Your task to perform on an android device: toggle wifi Image 0: 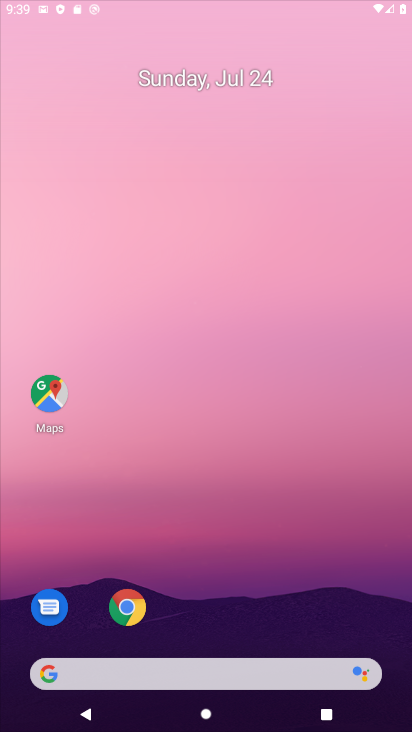
Step 0: press home button
Your task to perform on an android device: toggle wifi Image 1: 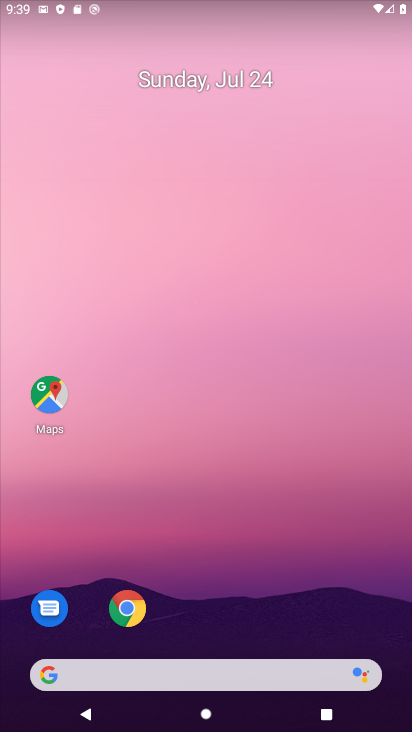
Step 1: drag from (207, 646) to (239, 6)
Your task to perform on an android device: toggle wifi Image 2: 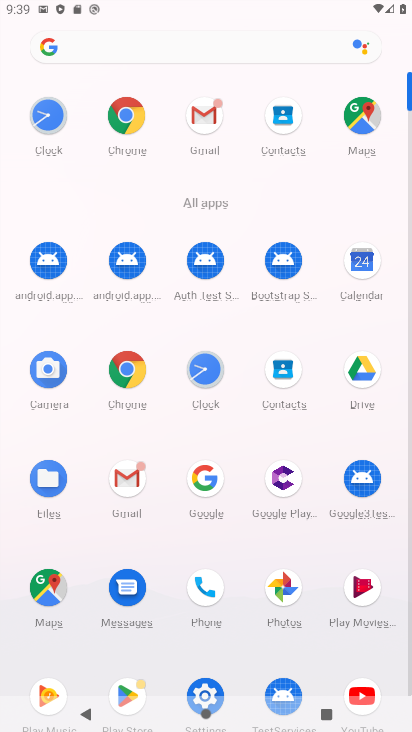
Step 2: drag from (232, 644) to (247, 212)
Your task to perform on an android device: toggle wifi Image 3: 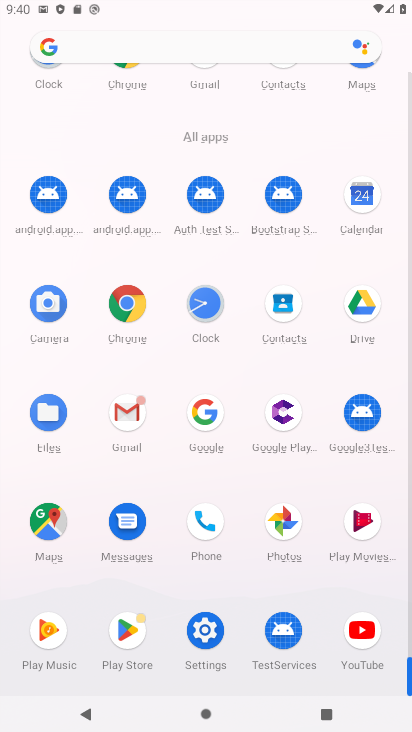
Step 3: click (205, 627)
Your task to perform on an android device: toggle wifi Image 4: 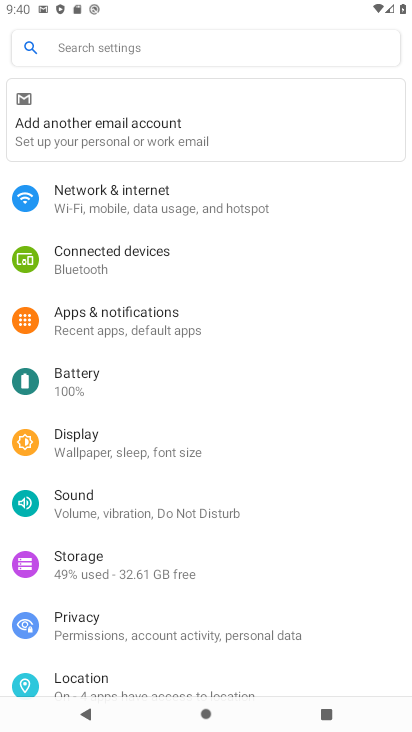
Step 4: click (183, 186)
Your task to perform on an android device: toggle wifi Image 5: 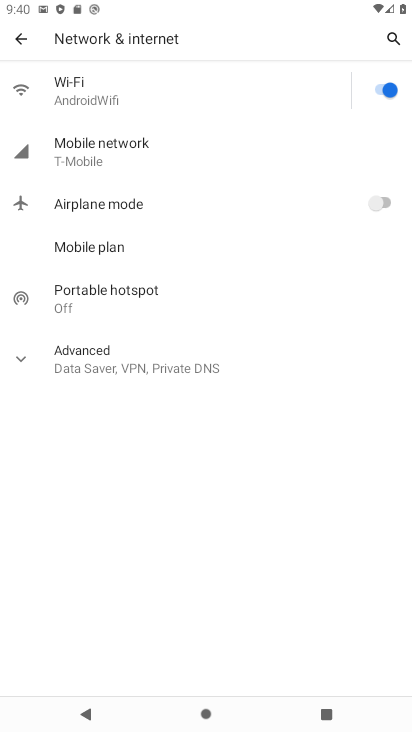
Step 5: click (372, 87)
Your task to perform on an android device: toggle wifi Image 6: 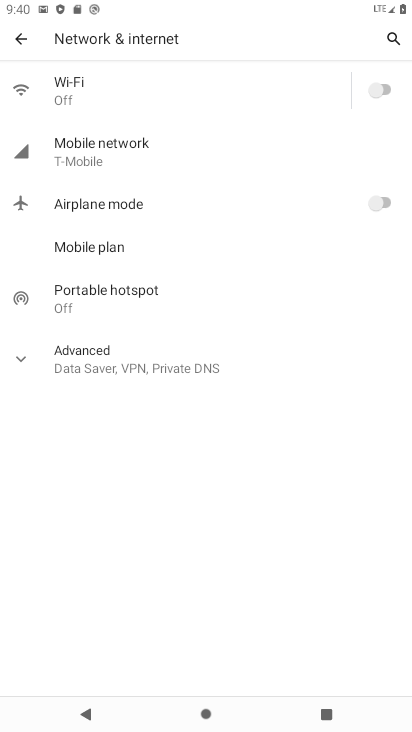
Step 6: task complete